Your task to perform on an android device: Open Google Chrome and click the shortcut for Amazon.com Image 0: 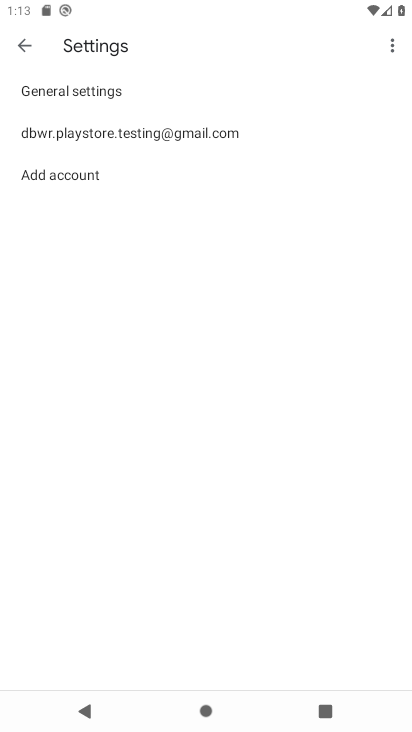
Step 0: press home button
Your task to perform on an android device: Open Google Chrome and click the shortcut for Amazon.com Image 1: 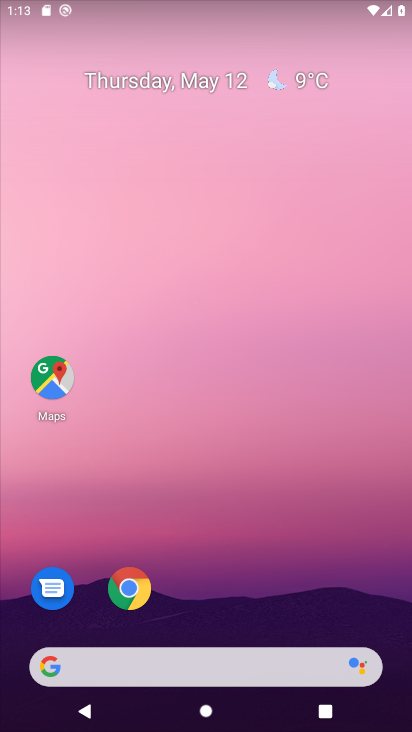
Step 1: drag from (338, 544) to (274, 109)
Your task to perform on an android device: Open Google Chrome and click the shortcut for Amazon.com Image 2: 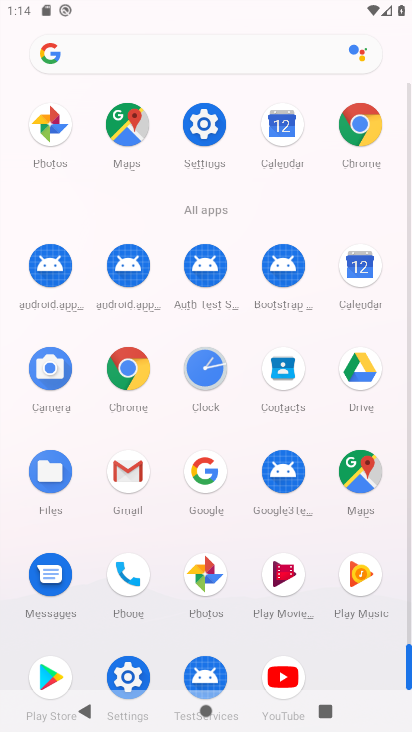
Step 2: click (360, 118)
Your task to perform on an android device: Open Google Chrome and click the shortcut for Amazon.com Image 3: 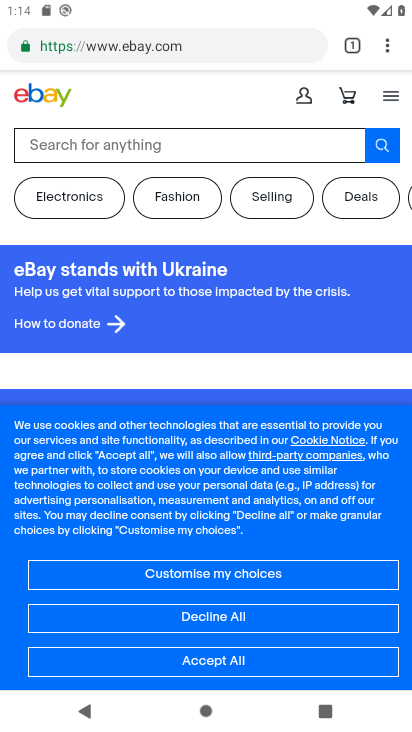
Step 3: click (263, 52)
Your task to perform on an android device: Open Google Chrome and click the shortcut for Amazon.com Image 4: 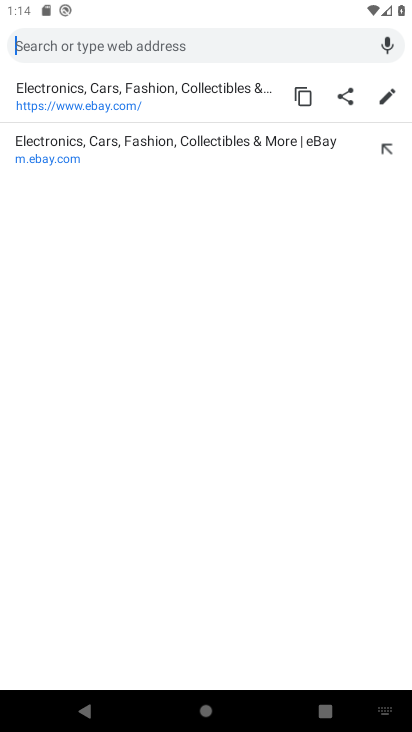
Step 4: type "am"
Your task to perform on an android device: Open Google Chrome and click the shortcut for Amazon.com Image 5: 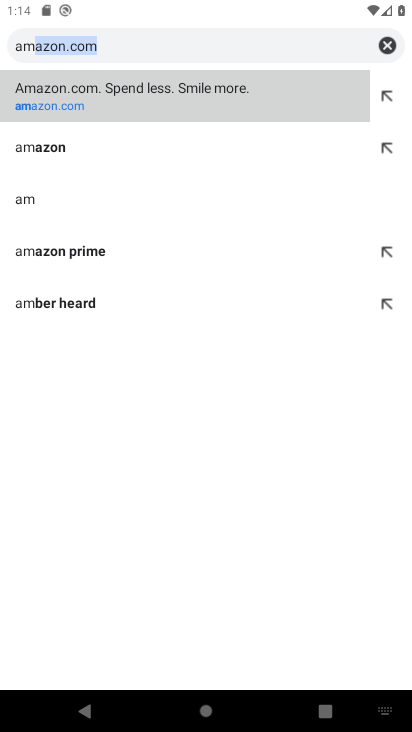
Step 5: click (40, 94)
Your task to perform on an android device: Open Google Chrome and click the shortcut for Amazon.com Image 6: 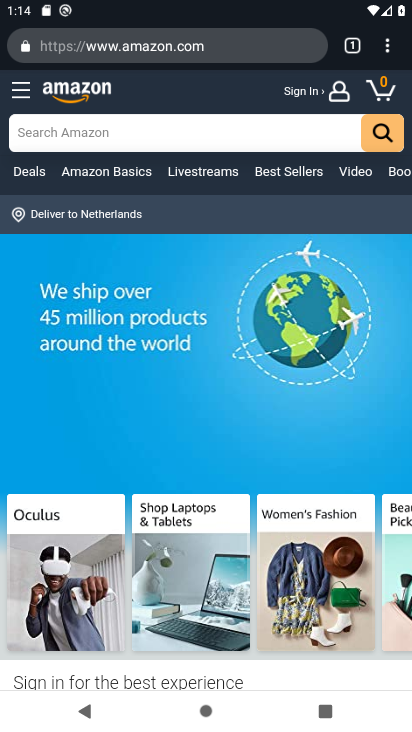
Step 6: task complete